Your task to perform on an android device: Open Google Maps and go to "Timeline" Image 0: 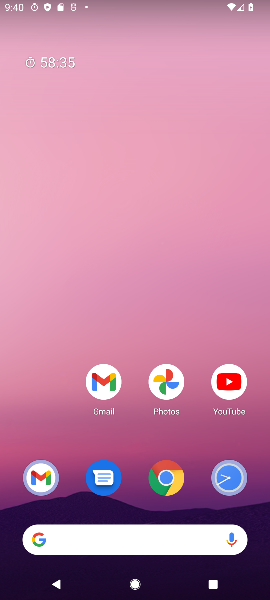
Step 0: press home button
Your task to perform on an android device: Open Google Maps and go to "Timeline" Image 1: 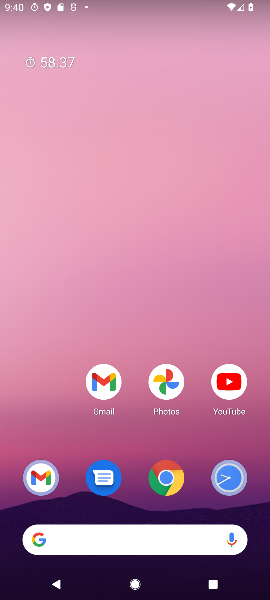
Step 1: drag from (162, 431) to (63, 192)
Your task to perform on an android device: Open Google Maps and go to "Timeline" Image 2: 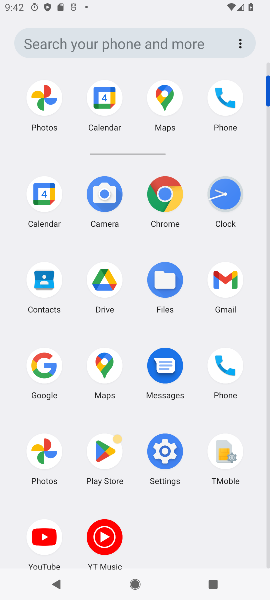
Step 2: click (97, 372)
Your task to perform on an android device: Open Google Maps and go to "Timeline" Image 3: 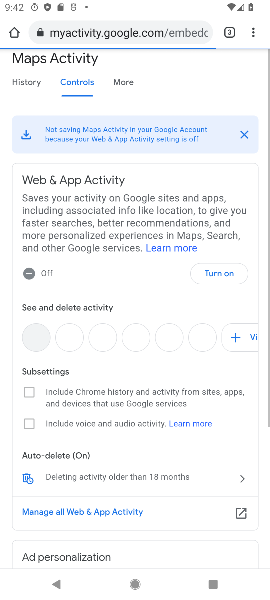
Step 3: task complete